Your task to perform on an android device: What's the weather? Image 0: 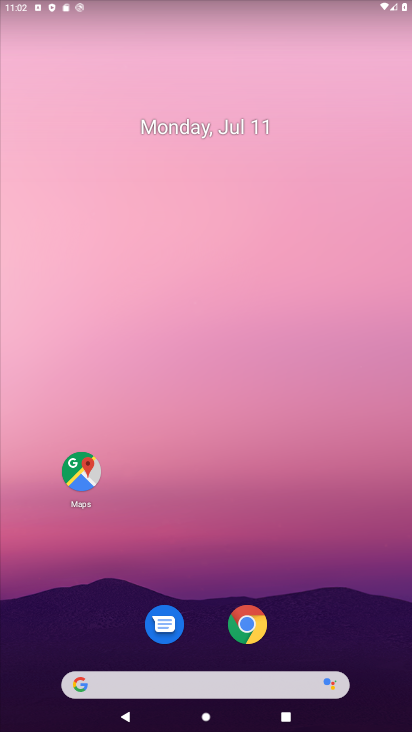
Step 0: drag from (196, 635) to (212, 271)
Your task to perform on an android device: What's the weather? Image 1: 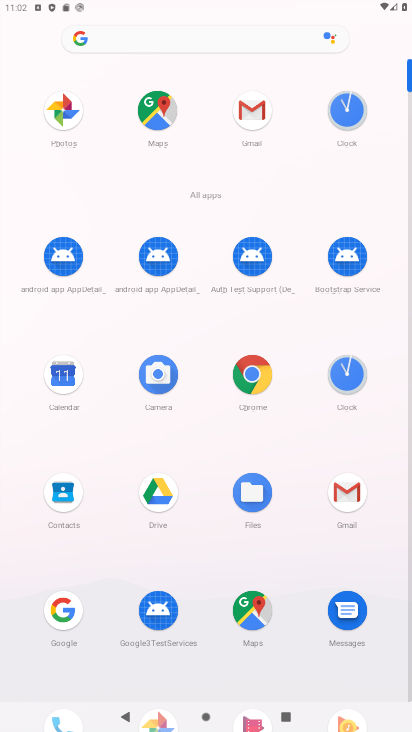
Step 1: click (63, 605)
Your task to perform on an android device: What's the weather? Image 2: 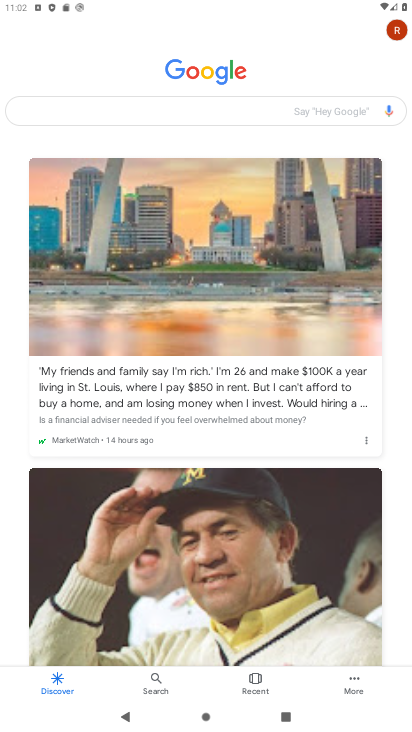
Step 2: click (197, 115)
Your task to perform on an android device: What's the weather? Image 3: 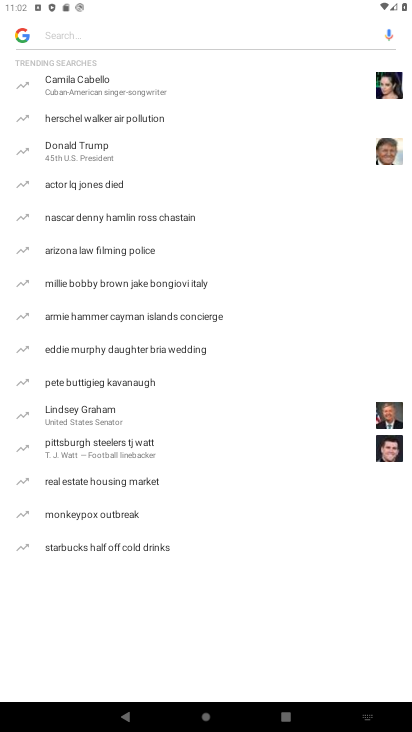
Step 3: type "weather"
Your task to perform on an android device: What's the weather? Image 4: 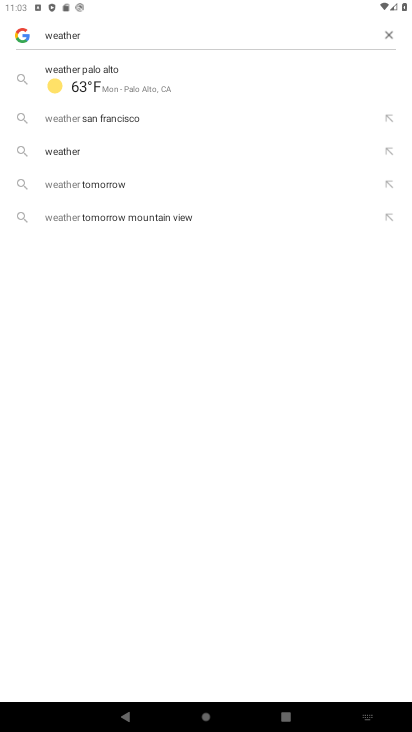
Step 4: click (177, 88)
Your task to perform on an android device: What's the weather? Image 5: 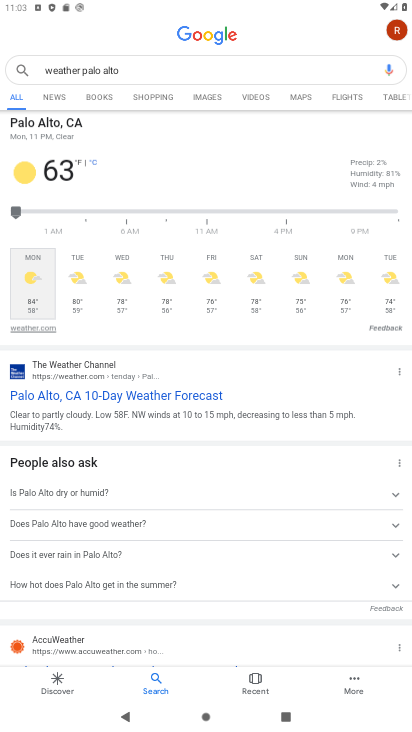
Step 5: task complete